Your task to perform on an android device: change notification settings in the gmail app Image 0: 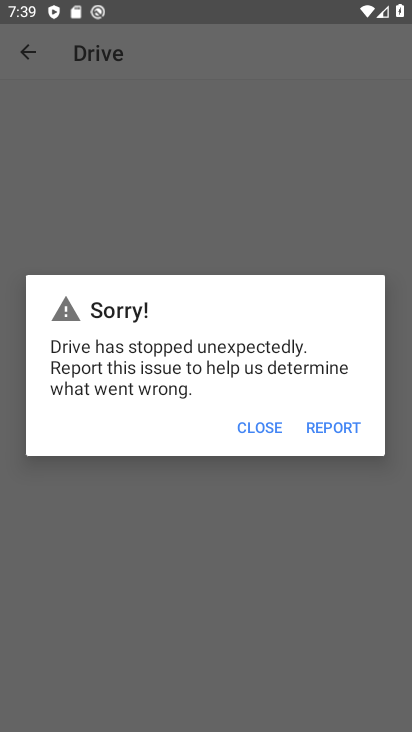
Step 0: press home button
Your task to perform on an android device: change notification settings in the gmail app Image 1: 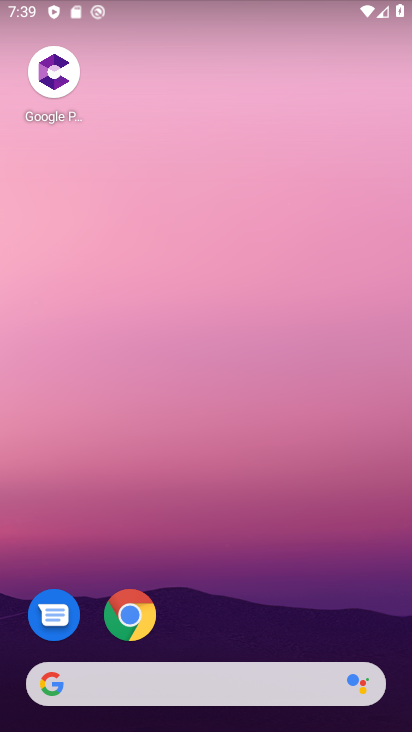
Step 1: drag from (118, 700) to (155, 105)
Your task to perform on an android device: change notification settings in the gmail app Image 2: 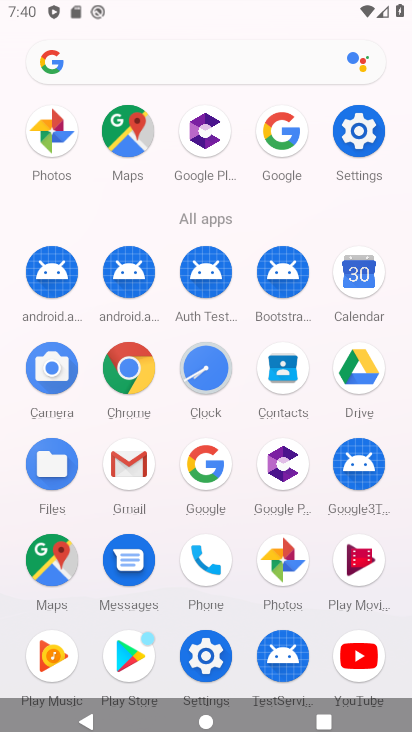
Step 2: click (138, 475)
Your task to perform on an android device: change notification settings in the gmail app Image 3: 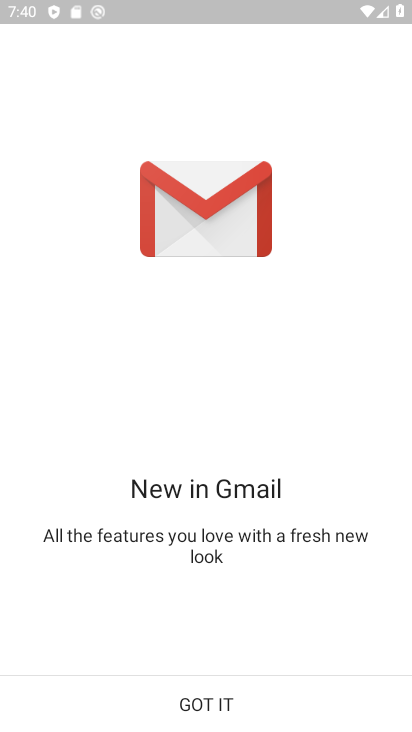
Step 3: click (233, 699)
Your task to perform on an android device: change notification settings in the gmail app Image 4: 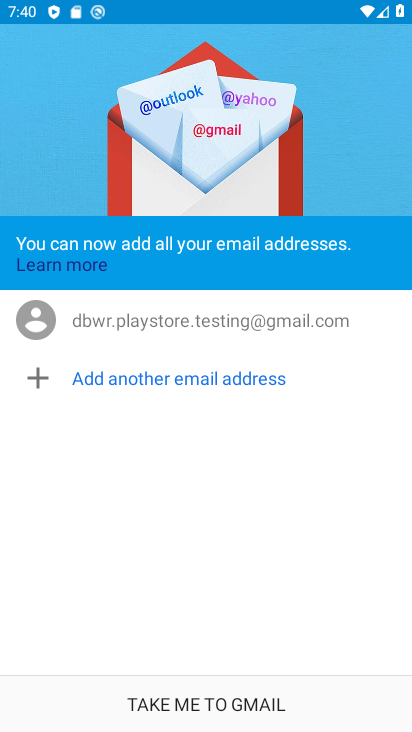
Step 4: click (233, 695)
Your task to perform on an android device: change notification settings in the gmail app Image 5: 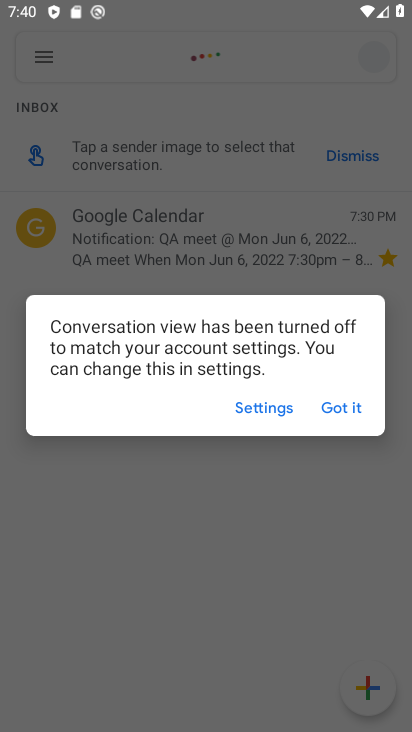
Step 5: click (362, 421)
Your task to perform on an android device: change notification settings in the gmail app Image 6: 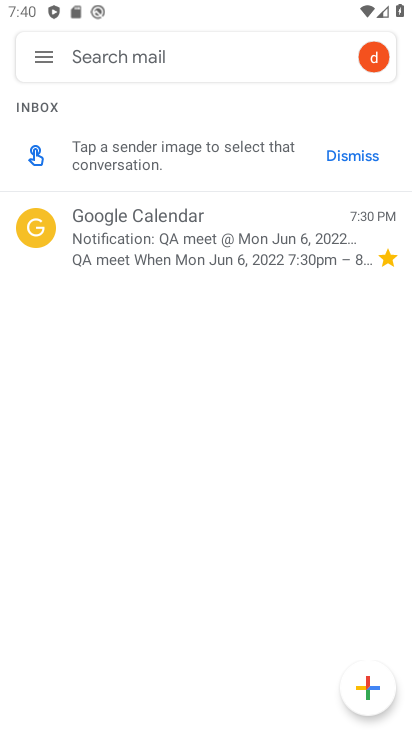
Step 6: click (44, 62)
Your task to perform on an android device: change notification settings in the gmail app Image 7: 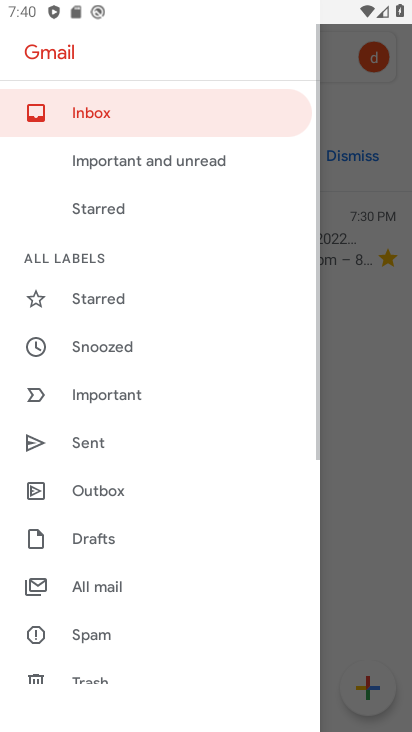
Step 7: drag from (124, 648) to (145, 216)
Your task to perform on an android device: change notification settings in the gmail app Image 8: 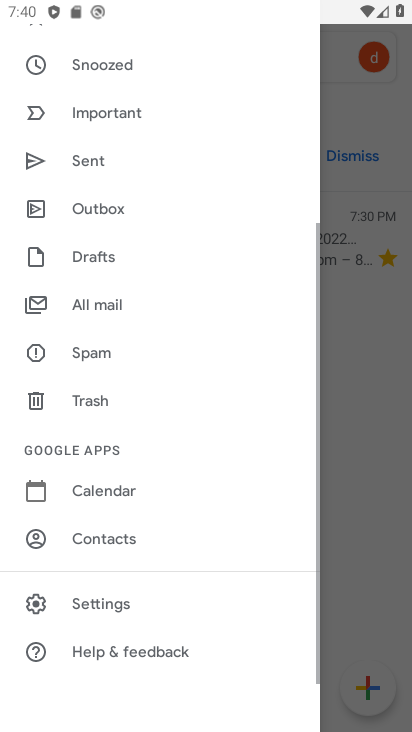
Step 8: click (76, 604)
Your task to perform on an android device: change notification settings in the gmail app Image 9: 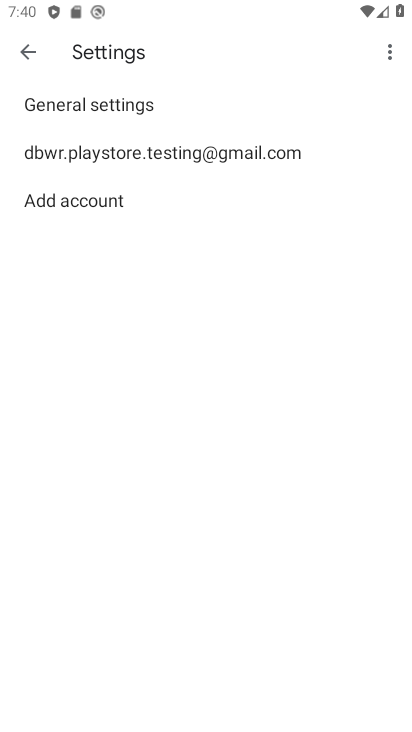
Step 9: click (99, 163)
Your task to perform on an android device: change notification settings in the gmail app Image 10: 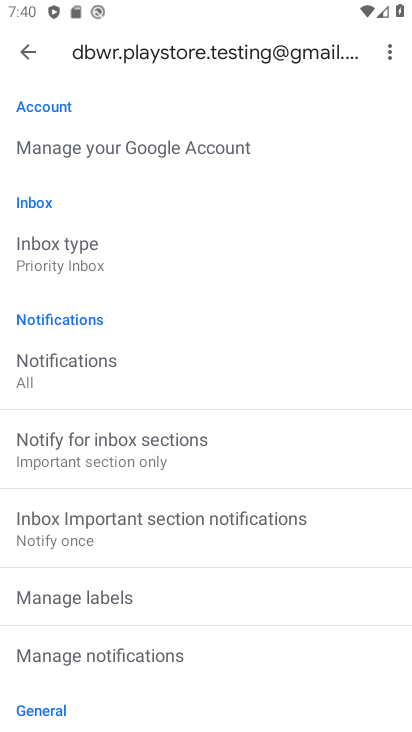
Step 10: click (47, 382)
Your task to perform on an android device: change notification settings in the gmail app Image 11: 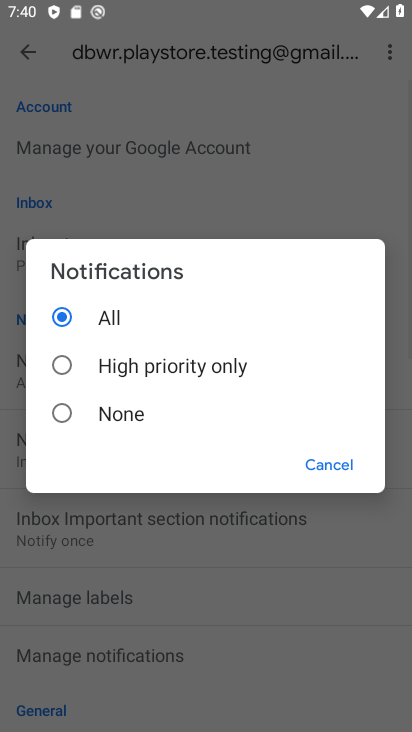
Step 11: click (121, 373)
Your task to perform on an android device: change notification settings in the gmail app Image 12: 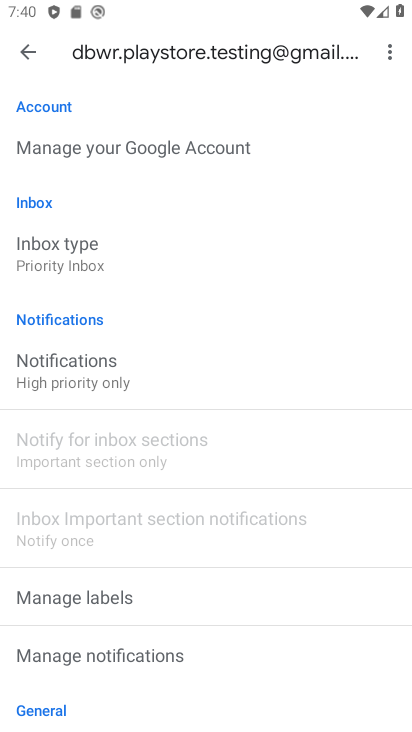
Step 12: task complete